Your task to perform on an android device: Clear the shopping cart on amazon. Search for "asus rog" on amazon, select the first entry, add it to the cart, then select checkout. Image 0: 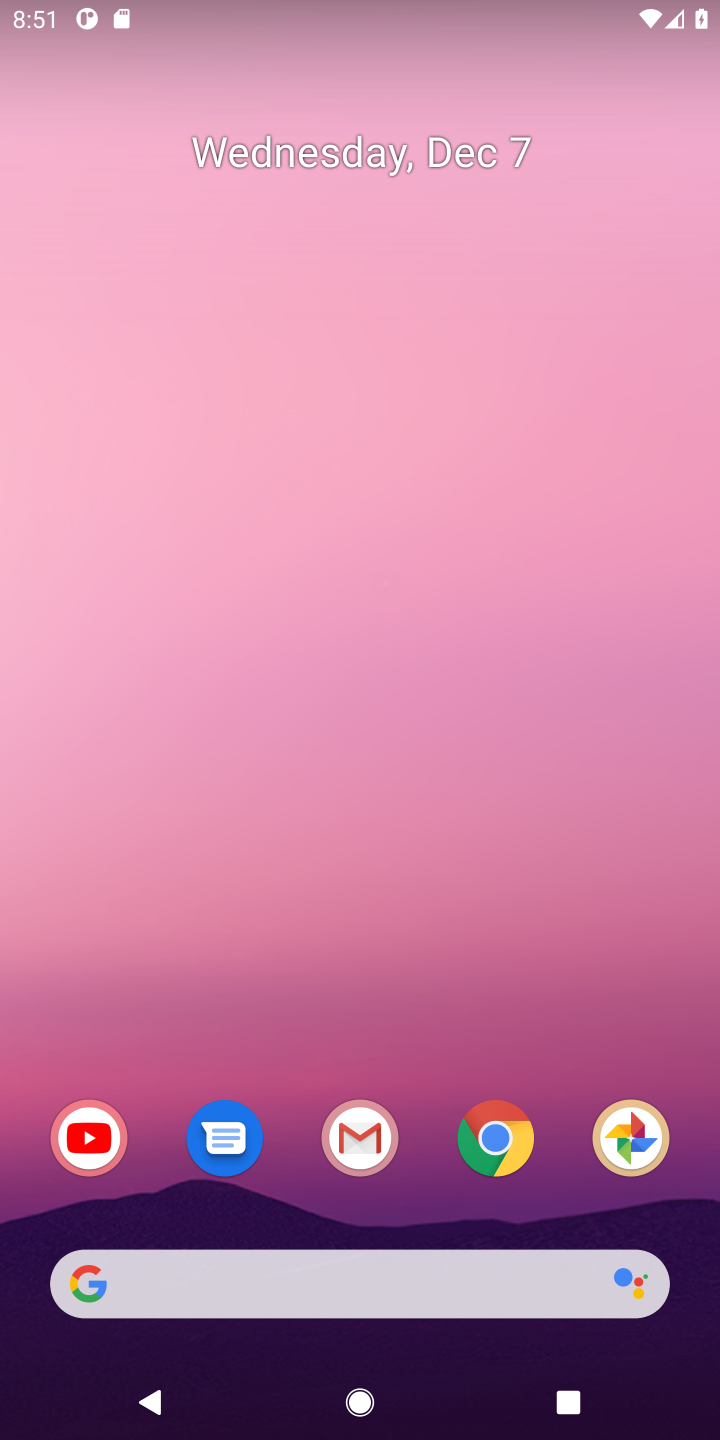
Step 0: press home button
Your task to perform on an android device: Clear the shopping cart on amazon. Search for "asus rog" on amazon, select the first entry, add it to the cart, then select checkout. Image 1: 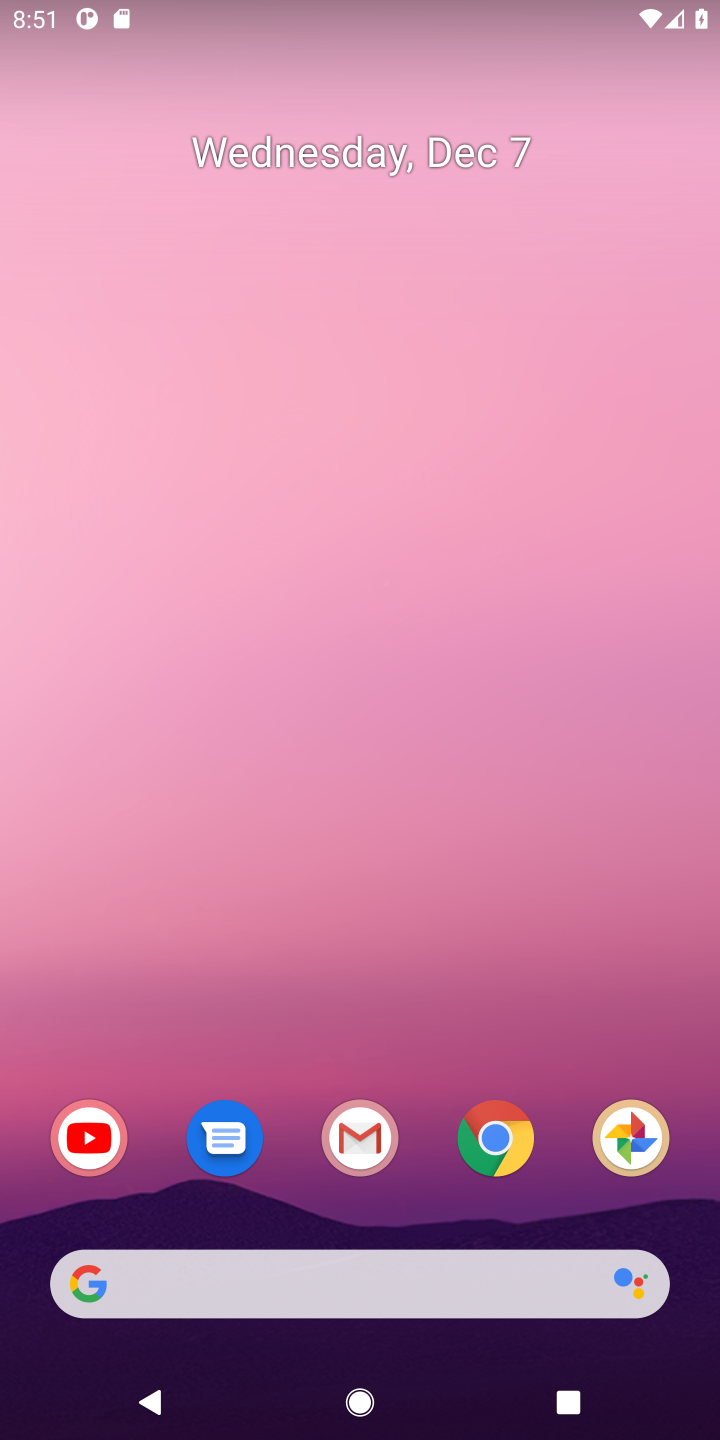
Step 1: click (123, 1285)
Your task to perform on an android device: Clear the shopping cart on amazon. Search for "asus rog" on amazon, select the first entry, add it to the cart, then select checkout. Image 2: 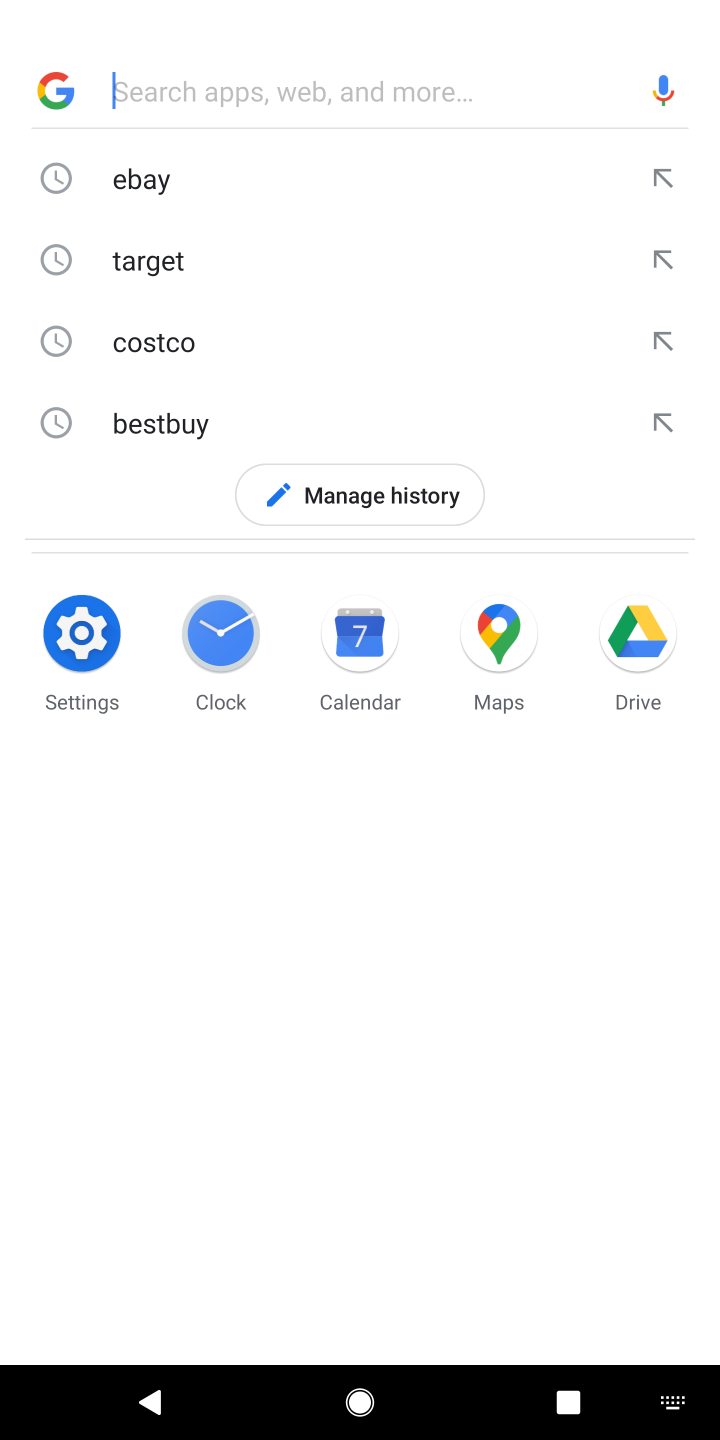
Step 2: type "amazon"
Your task to perform on an android device: Clear the shopping cart on amazon. Search for "asus rog" on amazon, select the first entry, add it to the cart, then select checkout. Image 3: 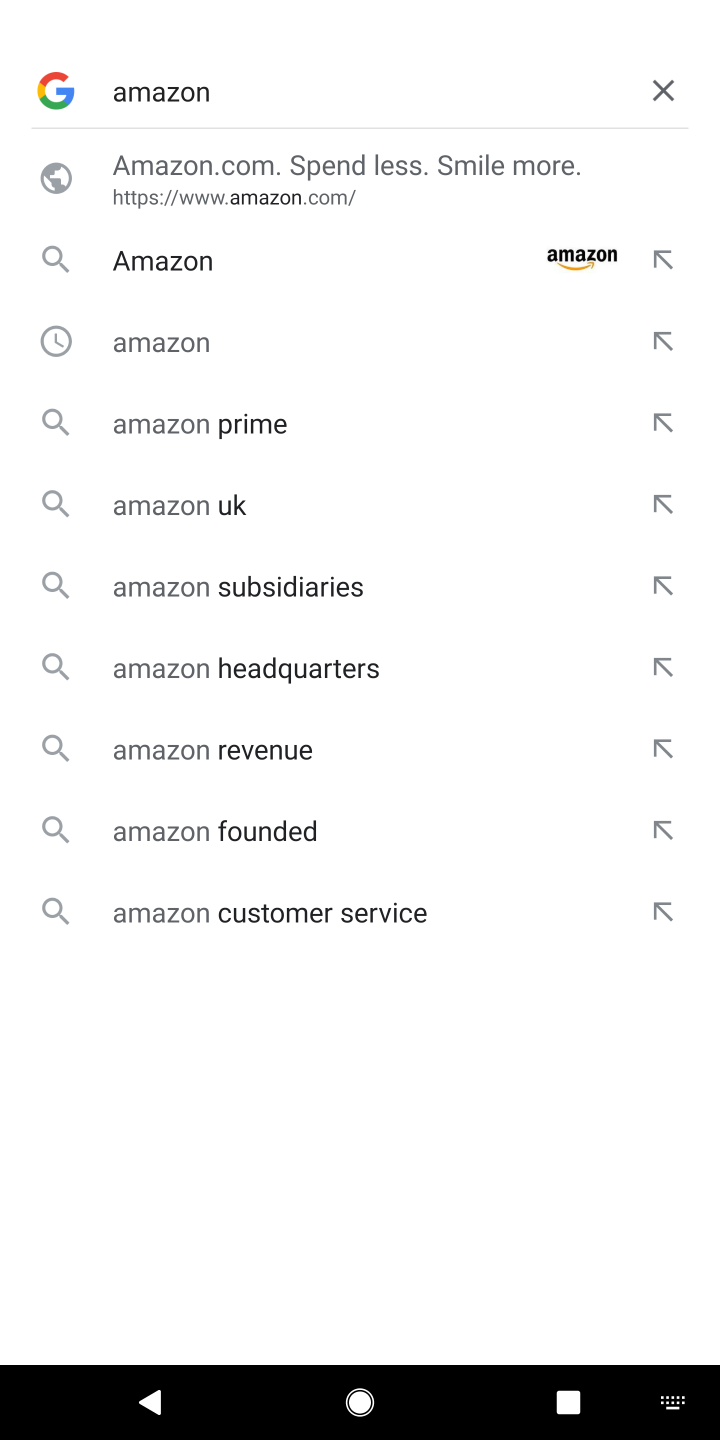
Step 3: press enter
Your task to perform on an android device: Clear the shopping cart on amazon. Search for "asus rog" on amazon, select the first entry, add it to the cart, then select checkout. Image 4: 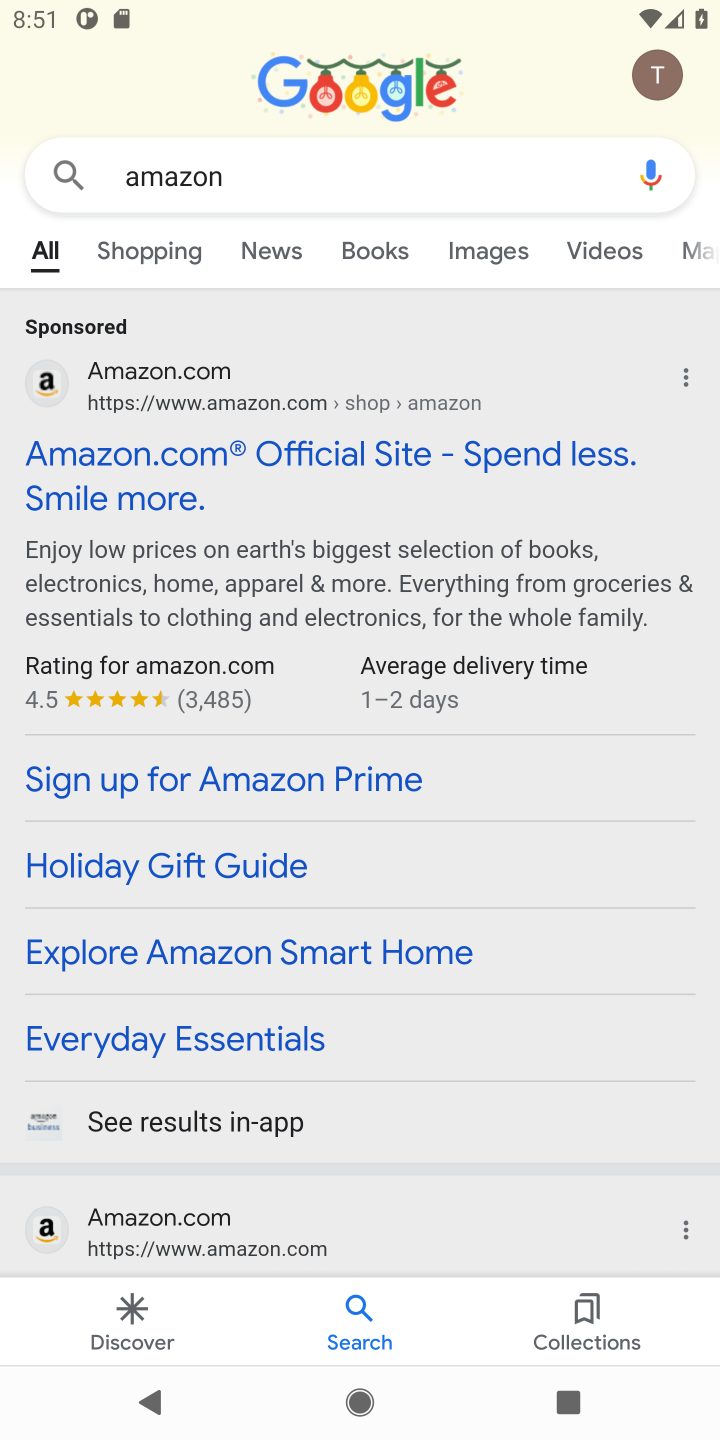
Step 4: click (212, 452)
Your task to perform on an android device: Clear the shopping cart on amazon. Search for "asus rog" on amazon, select the first entry, add it to the cart, then select checkout. Image 5: 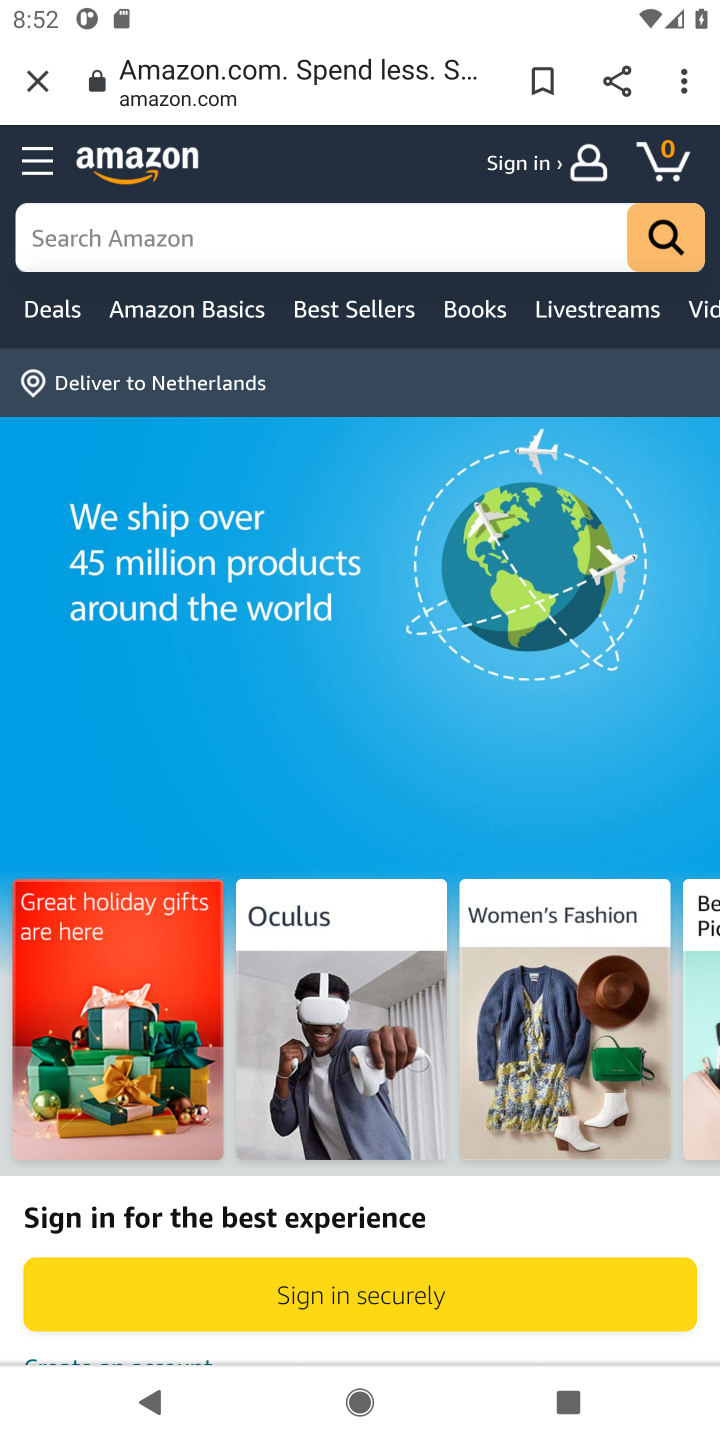
Step 5: click (661, 154)
Your task to perform on an android device: Clear the shopping cart on amazon. Search for "asus rog" on amazon, select the first entry, add it to the cart, then select checkout. Image 6: 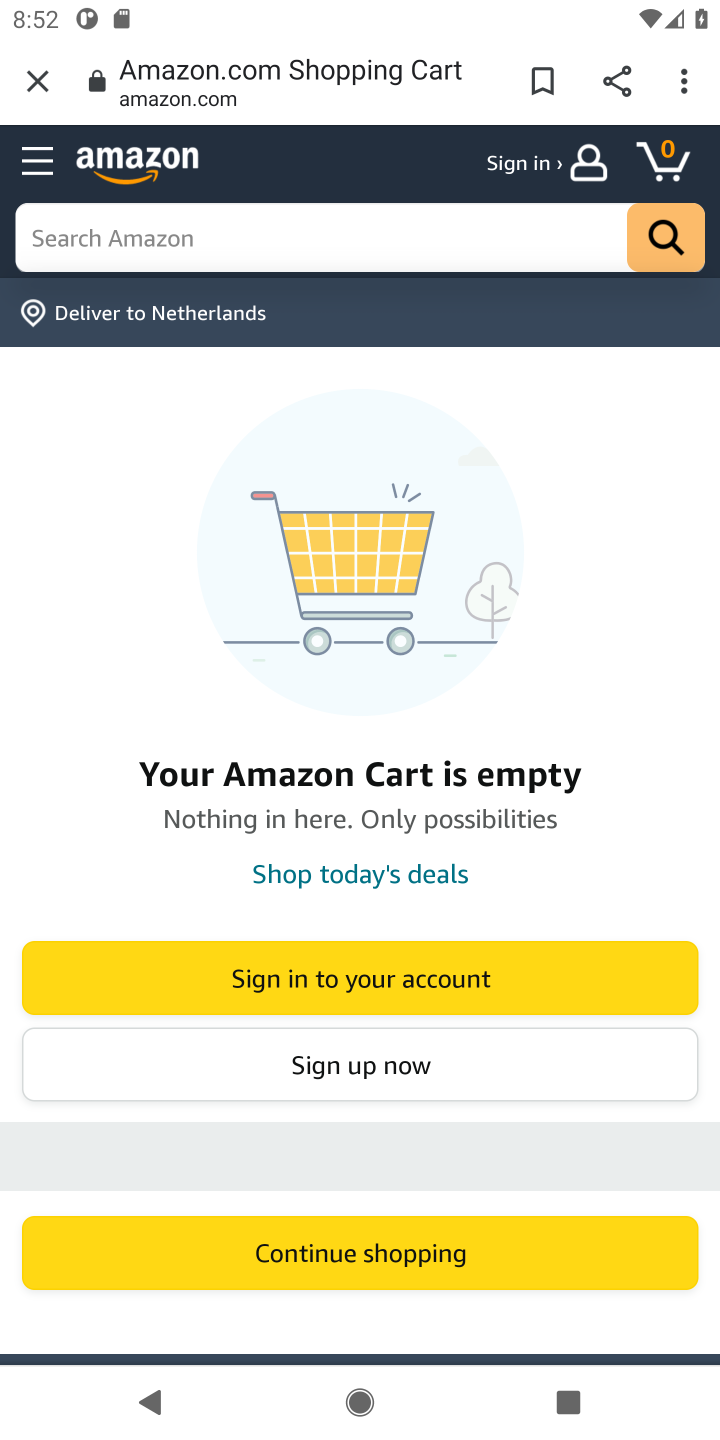
Step 6: click (147, 239)
Your task to perform on an android device: Clear the shopping cart on amazon. Search for "asus rog" on amazon, select the first entry, add it to the cart, then select checkout. Image 7: 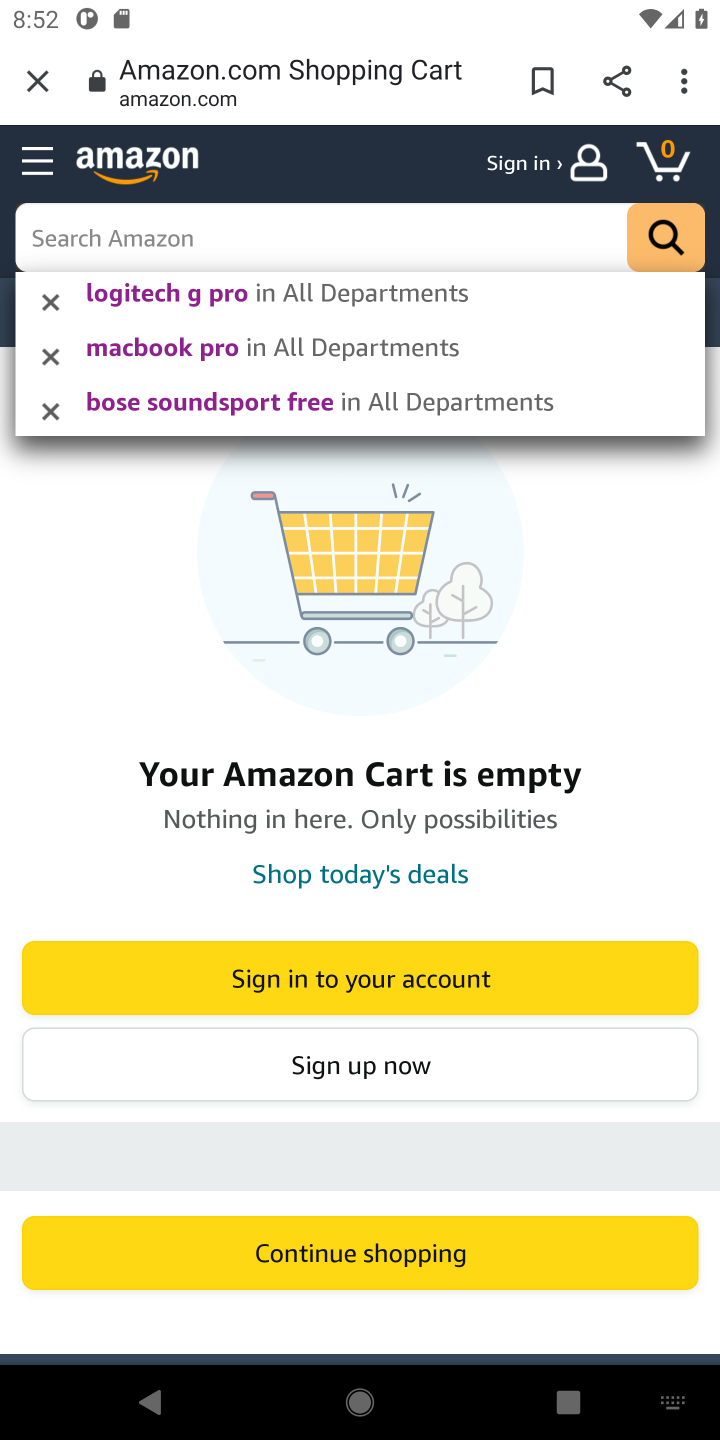
Step 7: type "asus rog"
Your task to perform on an android device: Clear the shopping cart on amazon. Search for "asus rog" on amazon, select the first entry, add it to the cart, then select checkout. Image 8: 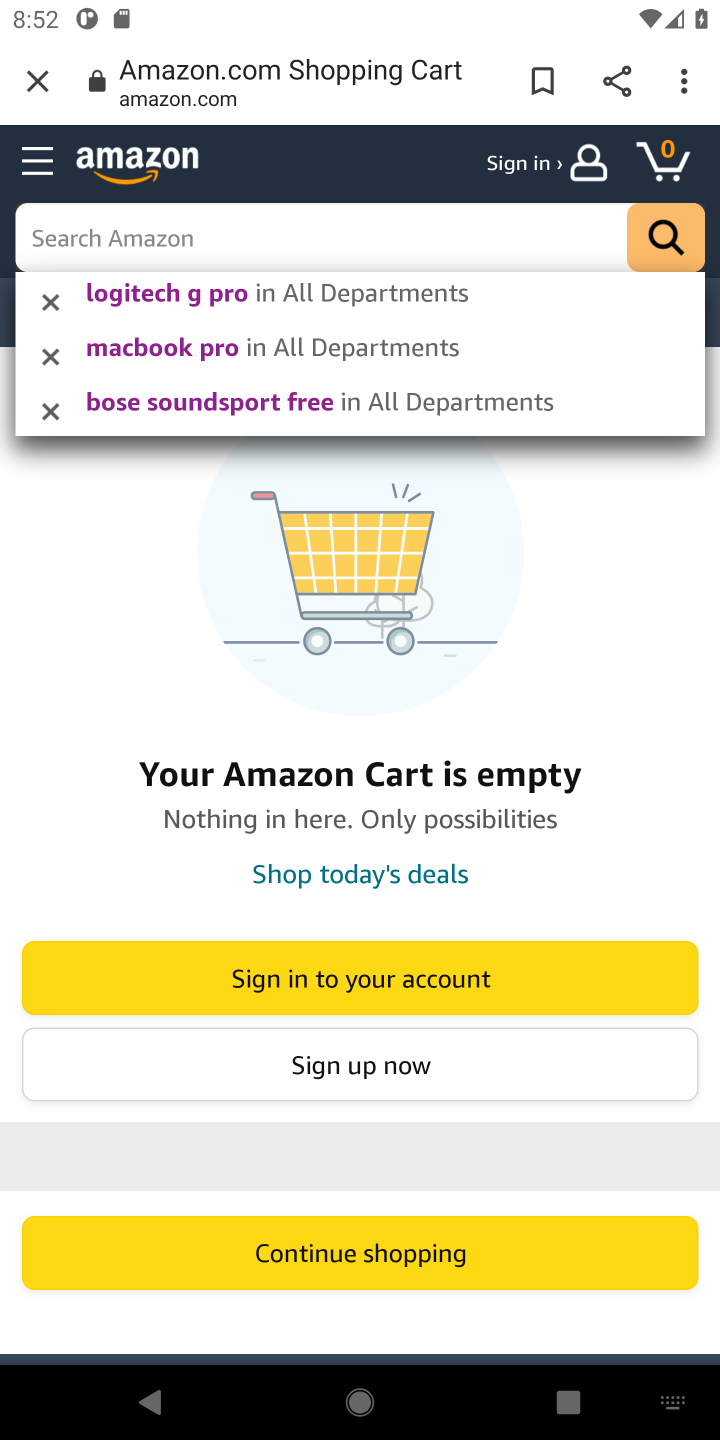
Step 8: press enter
Your task to perform on an android device: Clear the shopping cart on amazon. Search for "asus rog" on amazon, select the first entry, add it to the cart, then select checkout. Image 9: 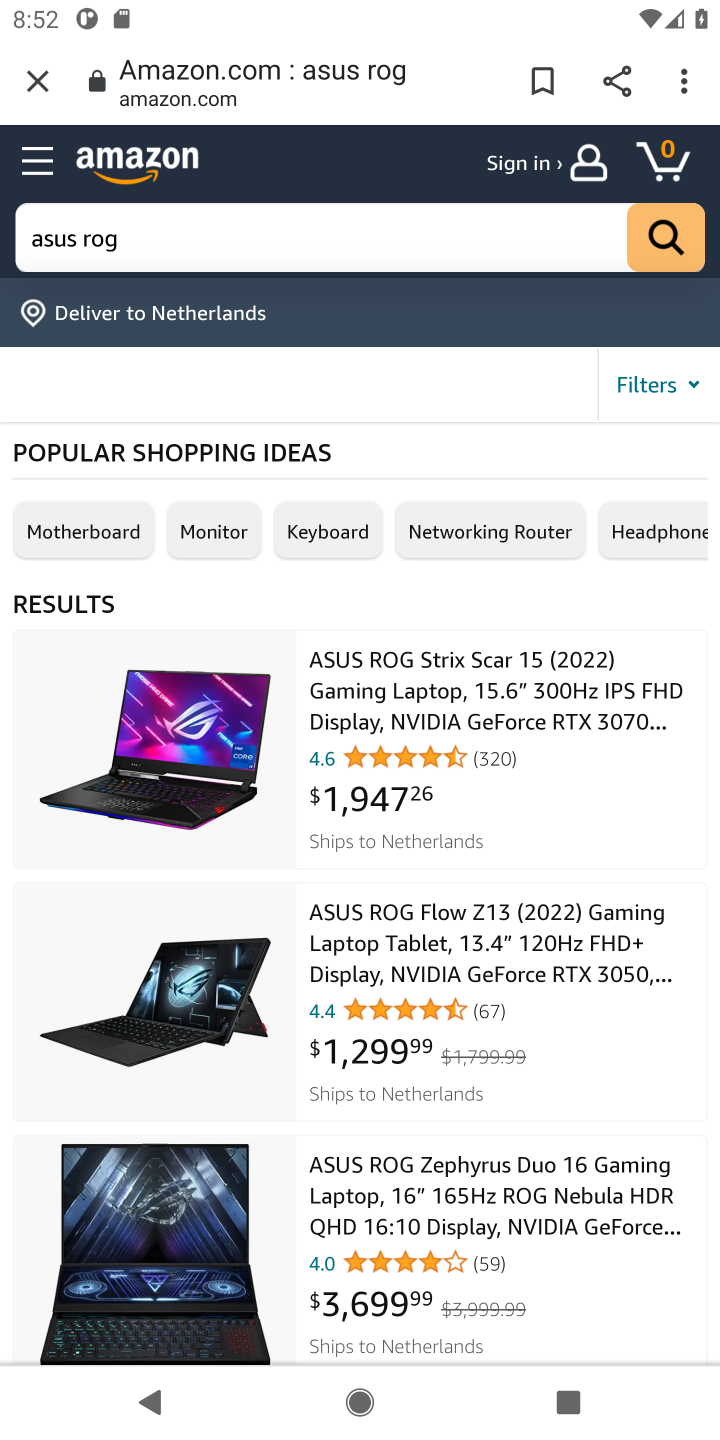
Step 9: click (349, 678)
Your task to perform on an android device: Clear the shopping cart on amazon. Search for "asus rog" on amazon, select the first entry, add it to the cart, then select checkout. Image 10: 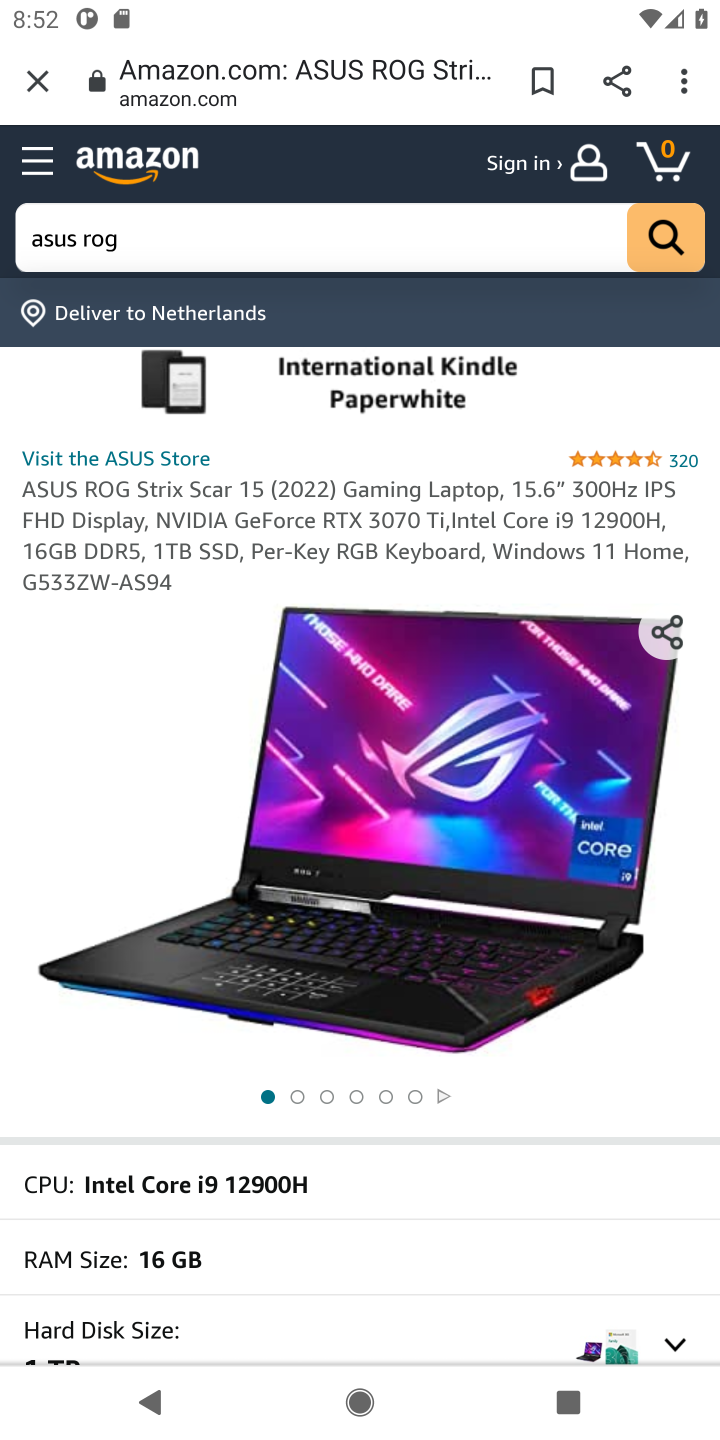
Step 10: drag from (602, 1171) to (561, 746)
Your task to perform on an android device: Clear the shopping cart on amazon. Search for "asus rog" on amazon, select the first entry, add it to the cart, then select checkout. Image 11: 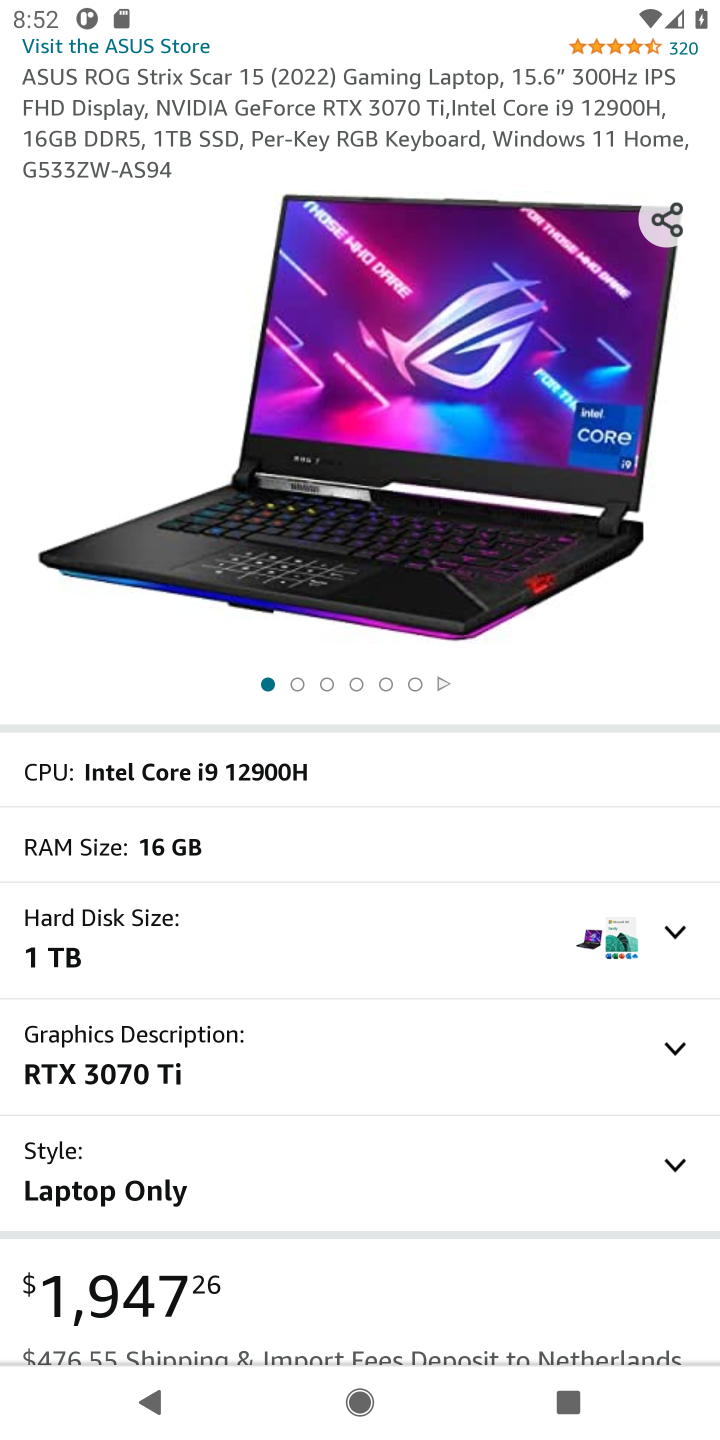
Step 11: drag from (372, 1111) to (389, 493)
Your task to perform on an android device: Clear the shopping cart on amazon. Search for "asus rog" on amazon, select the first entry, add it to the cart, then select checkout. Image 12: 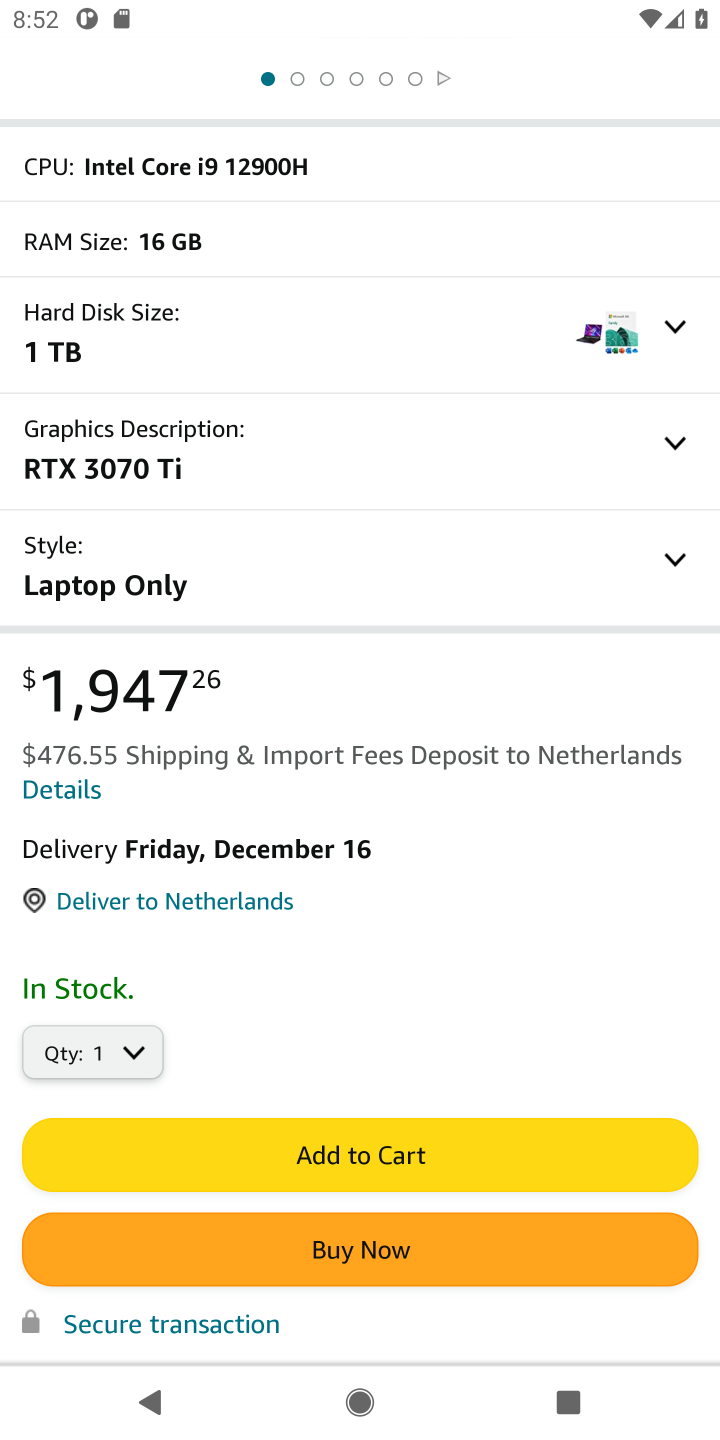
Step 12: click (342, 1150)
Your task to perform on an android device: Clear the shopping cart on amazon. Search for "asus rog" on amazon, select the first entry, add it to the cart, then select checkout. Image 13: 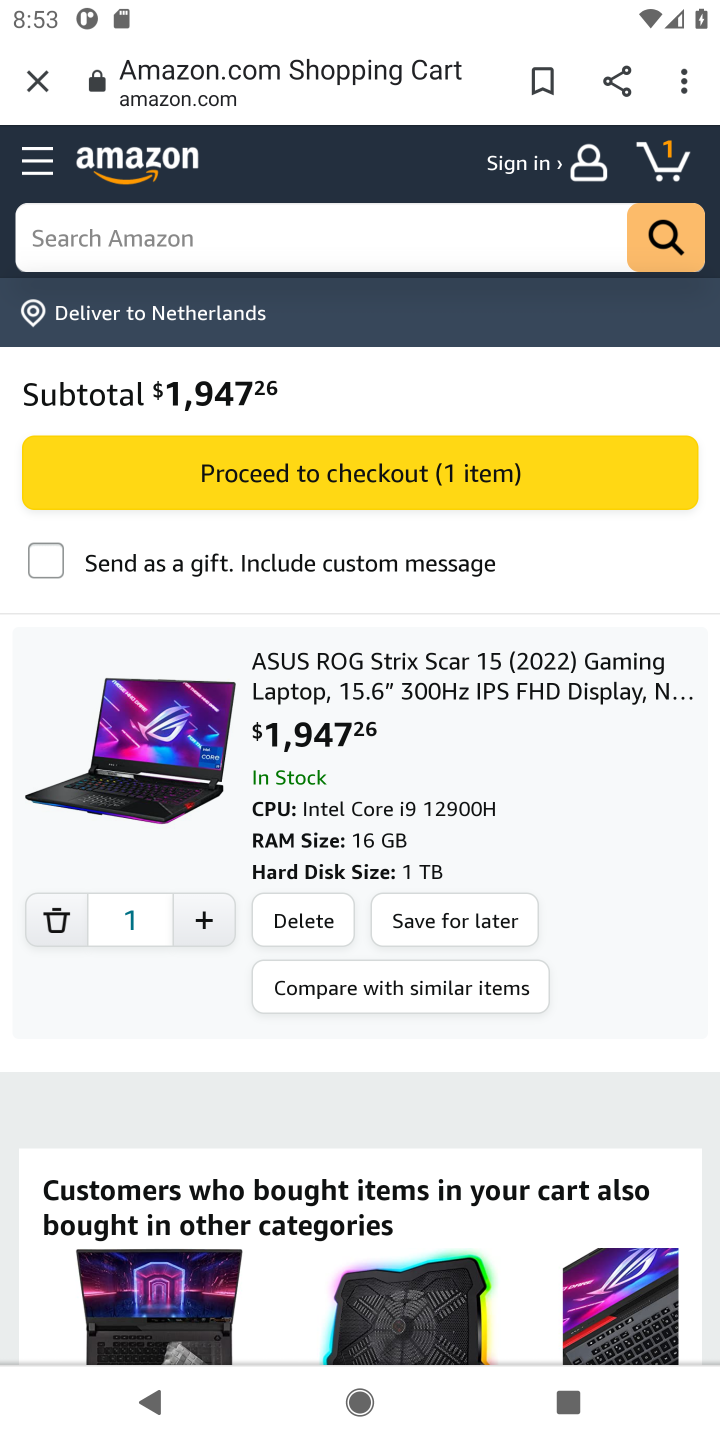
Step 13: task complete